Your task to perform on an android device: open app "HBO Max: Stream TV & Movies" Image 0: 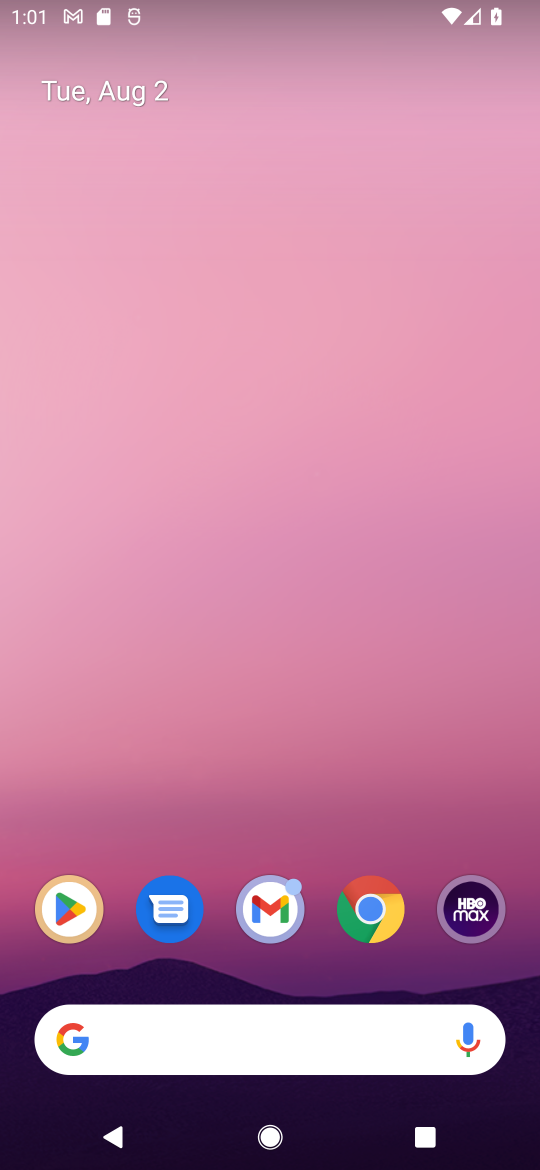
Step 0: press home button
Your task to perform on an android device: open app "HBO Max: Stream TV & Movies" Image 1: 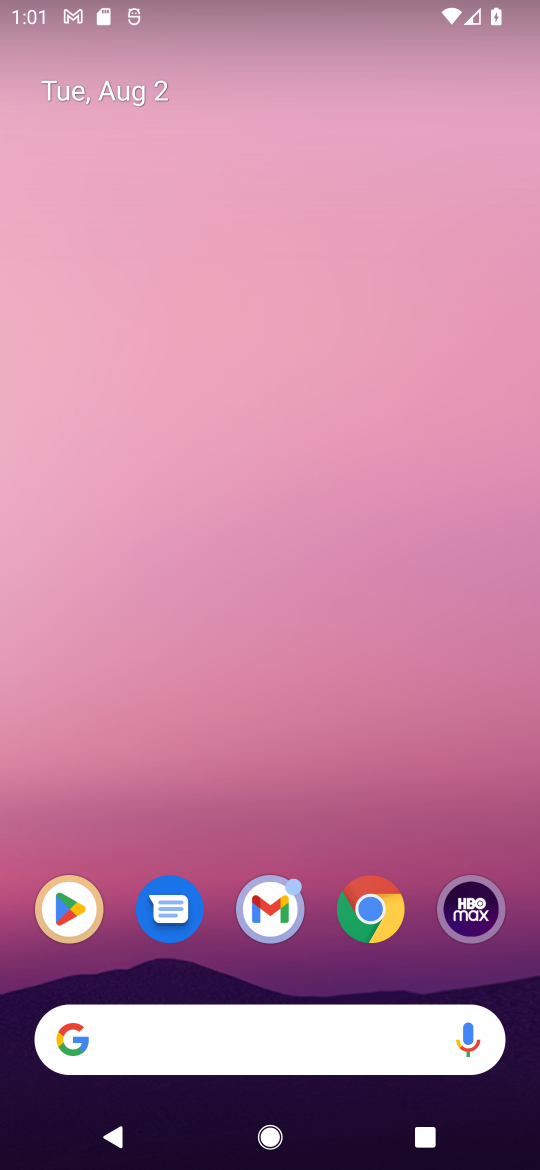
Step 1: click (68, 905)
Your task to perform on an android device: open app "HBO Max: Stream TV & Movies" Image 2: 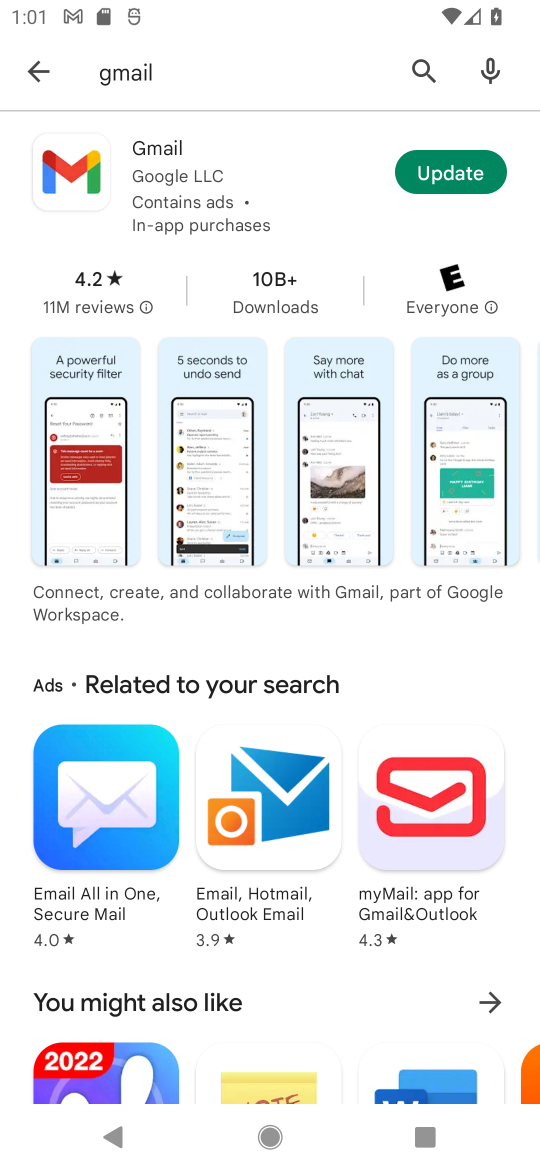
Step 2: click (418, 56)
Your task to perform on an android device: open app "HBO Max: Stream TV & Movies" Image 3: 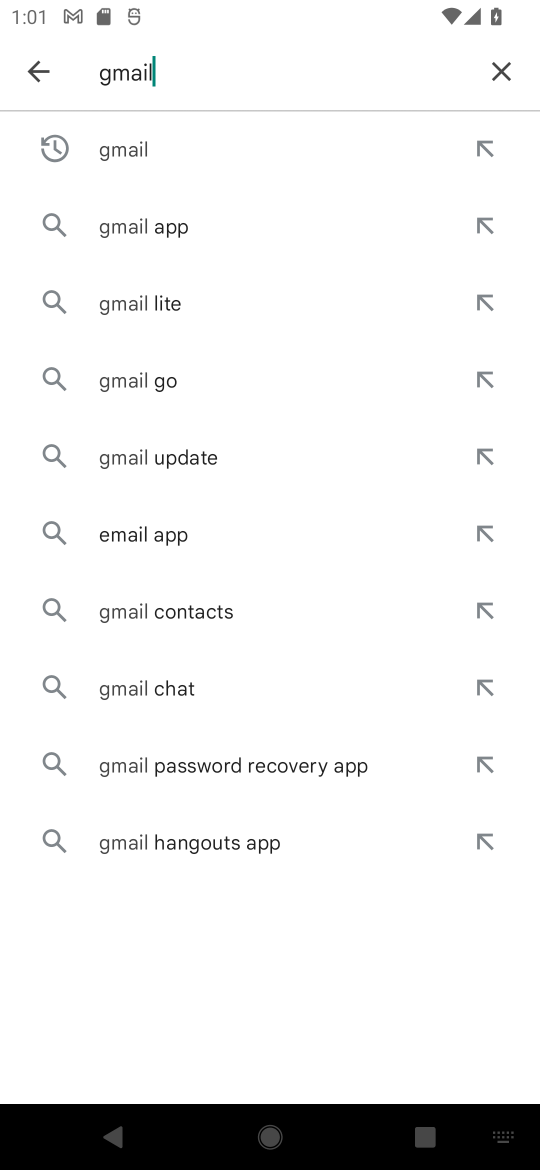
Step 3: click (126, 155)
Your task to perform on an android device: open app "HBO Max: Stream TV & Movies" Image 4: 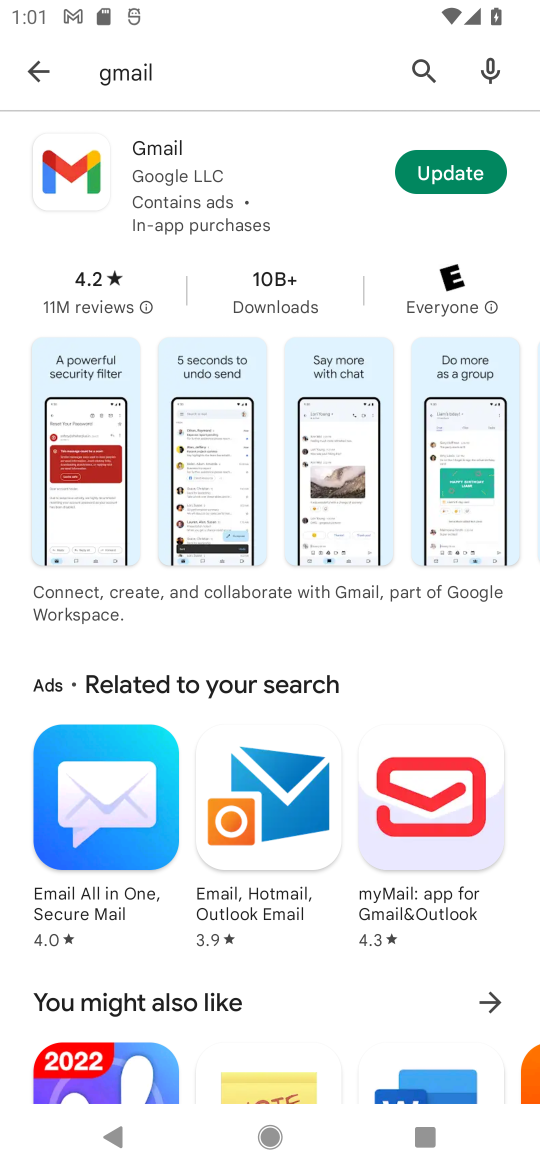
Step 4: click (424, 73)
Your task to perform on an android device: open app "HBO Max: Stream TV & Movies" Image 5: 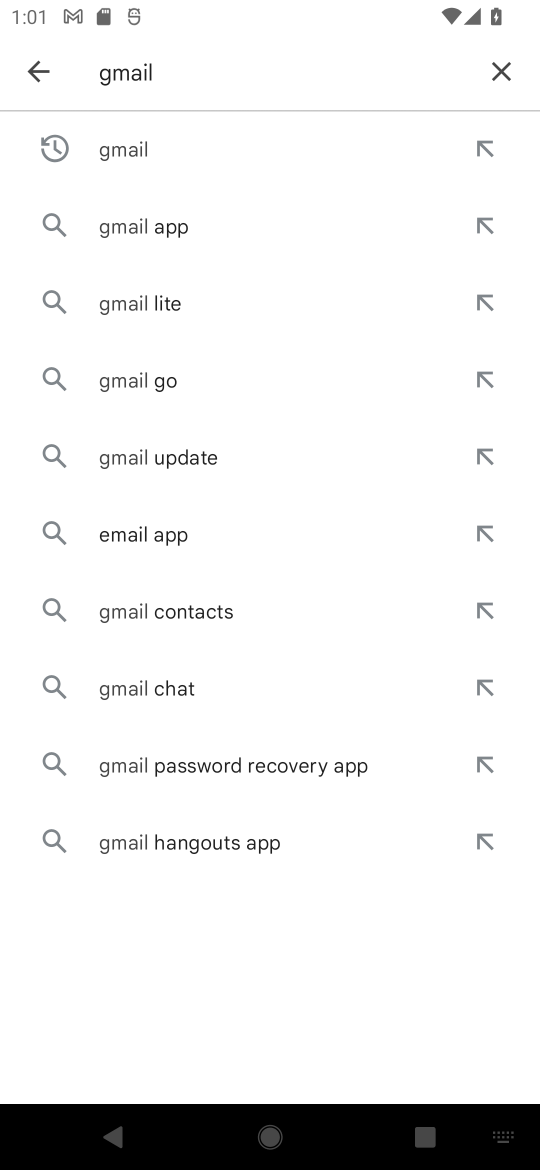
Step 5: click (498, 64)
Your task to perform on an android device: open app "HBO Max: Stream TV & Movies" Image 6: 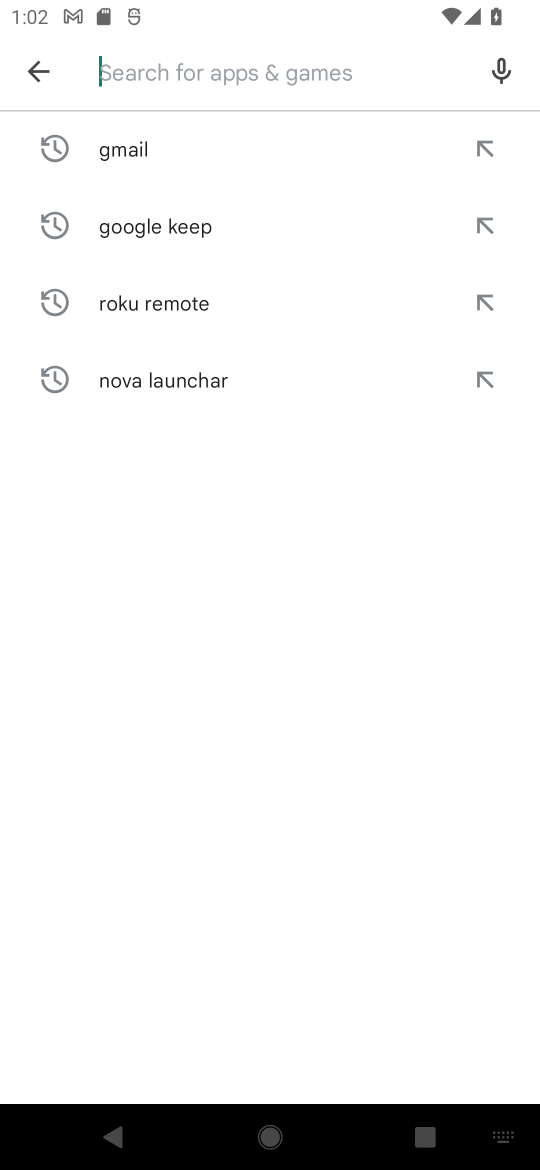
Step 6: type "HBO Max: Stream TV & Movies""
Your task to perform on an android device: open app "HBO Max: Stream TV & Movies" Image 7: 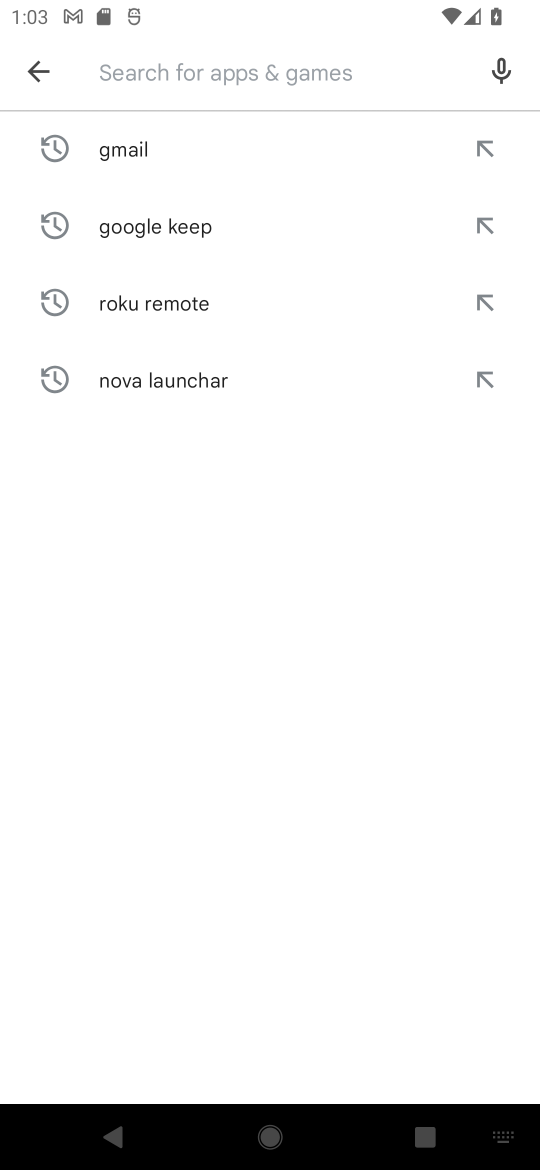
Step 7: type "HBO Max Stream"
Your task to perform on an android device: open app "HBO Max: Stream TV & Movies" Image 8: 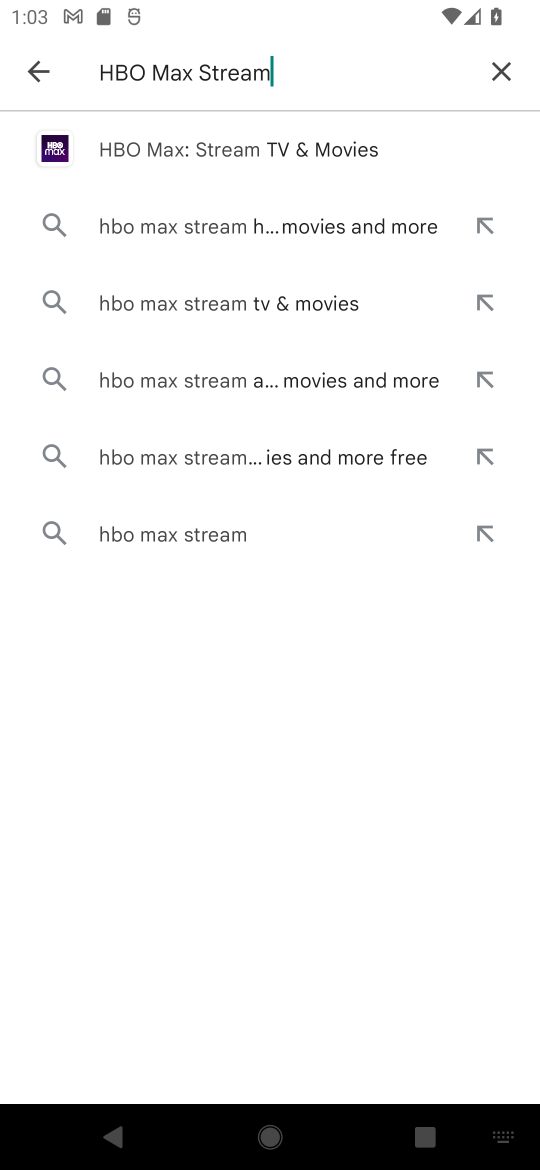
Step 8: click (248, 154)
Your task to perform on an android device: open app "HBO Max: Stream TV & Movies" Image 9: 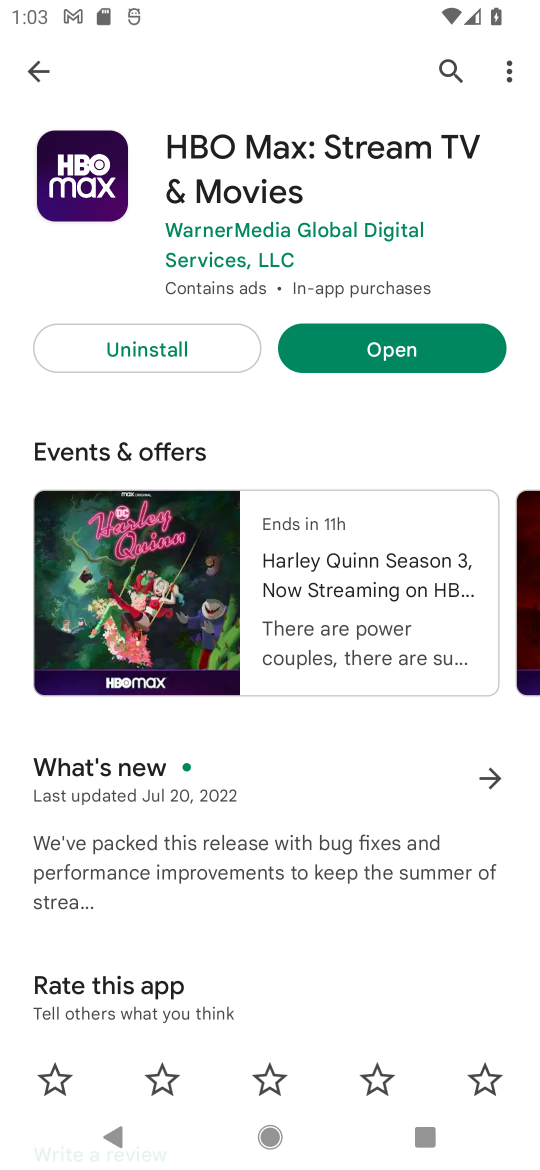
Step 9: click (458, 338)
Your task to perform on an android device: open app "HBO Max: Stream TV & Movies" Image 10: 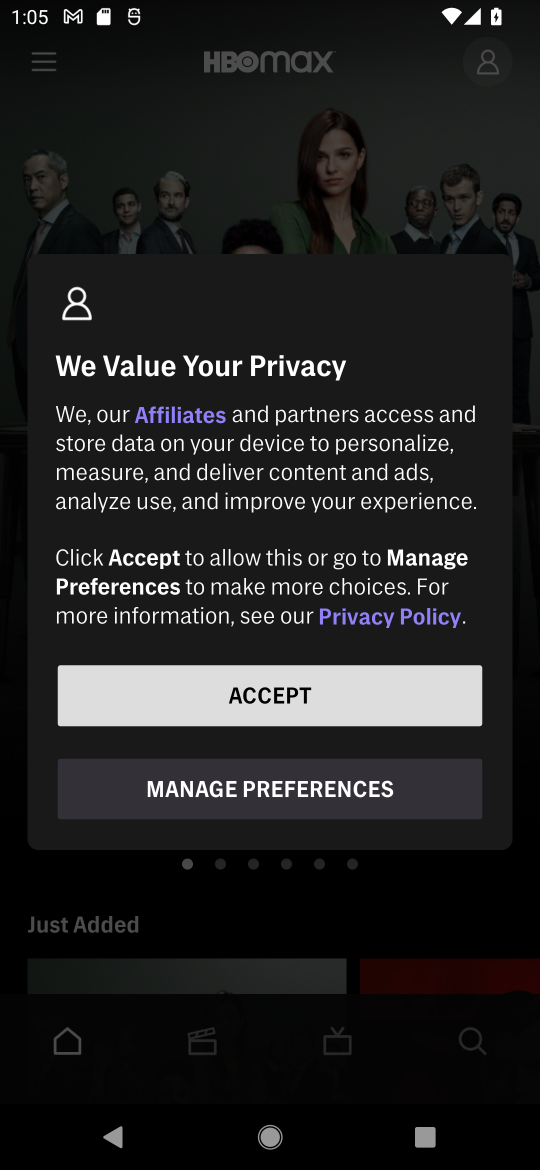
Step 10: task complete